Your task to perform on an android device: Open Maps and search for coffee Image 0: 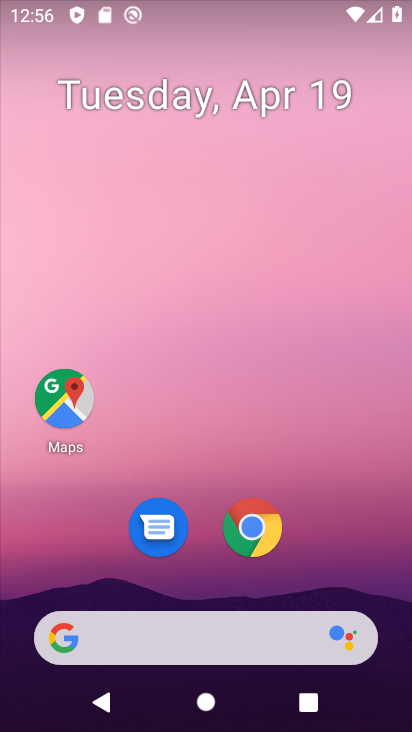
Step 0: drag from (346, 538) to (343, 143)
Your task to perform on an android device: Open Maps and search for coffee Image 1: 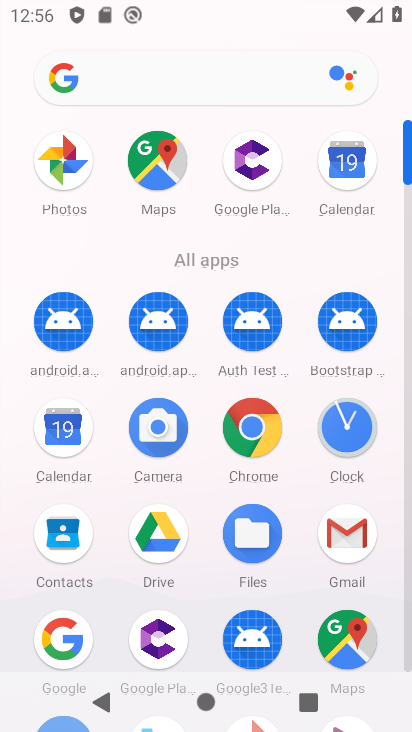
Step 1: click (144, 163)
Your task to perform on an android device: Open Maps and search for coffee Image 2: 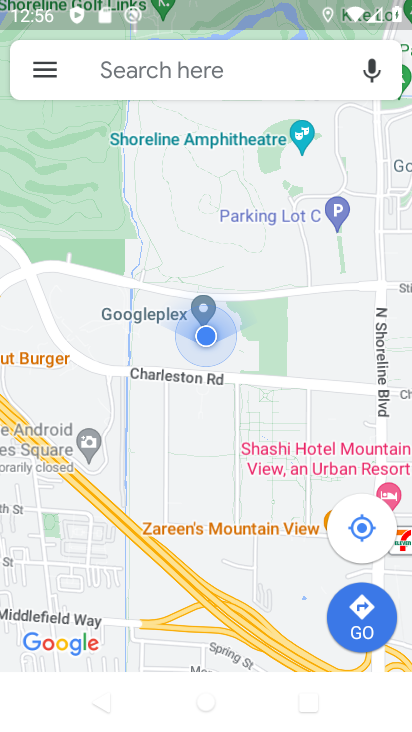
Step 2: click (146, 68)
Your task to perform on an android device: Open Maps and search for coffee Image 3: 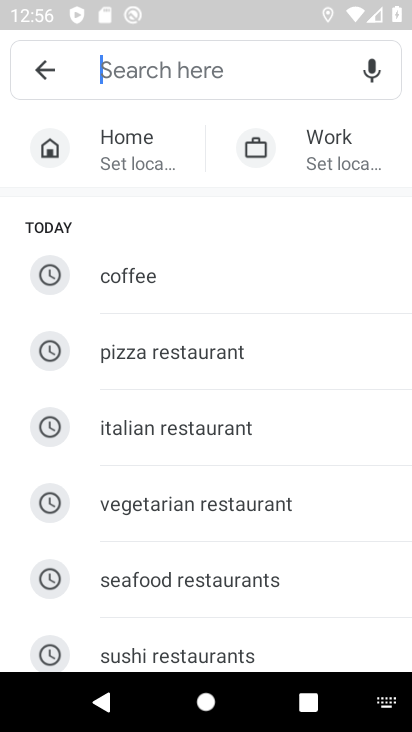
Step 3: type " coffee"
Your task to perform on an android device: Open Maps and search for coffee Image 4: 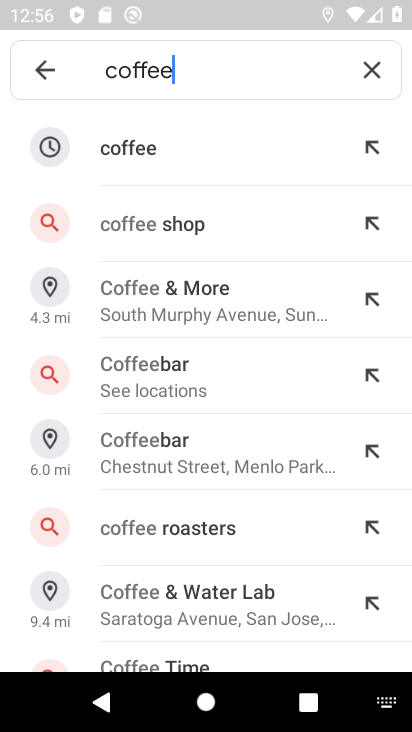
Step 4: click (151, 151)
Your task to perform on an android device: Open Maps and search for coffee Image 5: 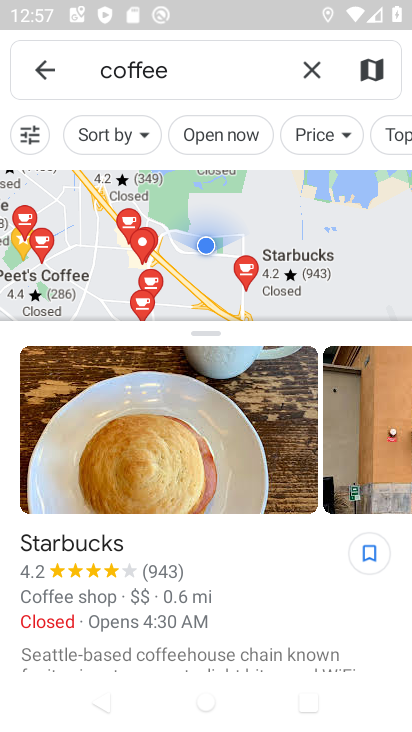
Step 5: task complete